Your task to perform on an android device: turn off sleep mode Image 0: 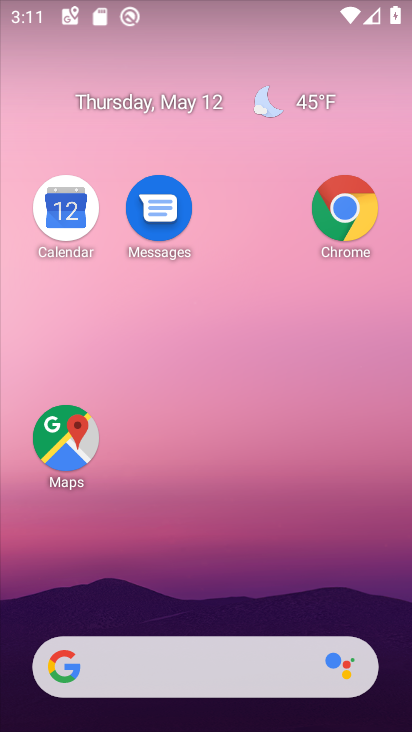
Step 0: drag from (136, 615) to (256, 0)
Your task to perform on an android device: turn off sleep mode Image 1: 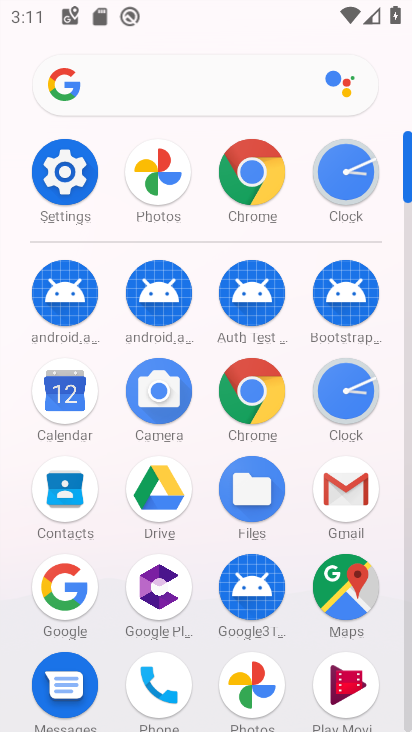
Step 1: click (68, 159)
Your task to perform on an android device: turn off sleep mode Image 2: 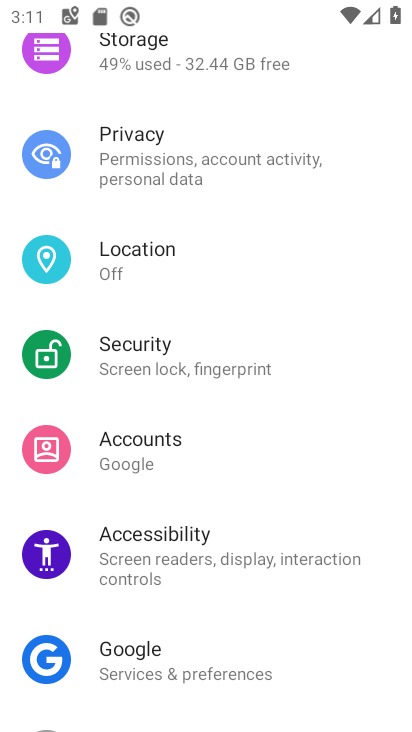
Step 2: drag from (178, 176) to (274, 657)
Your task to perform on an android device: turn off sleep mode Image 3: 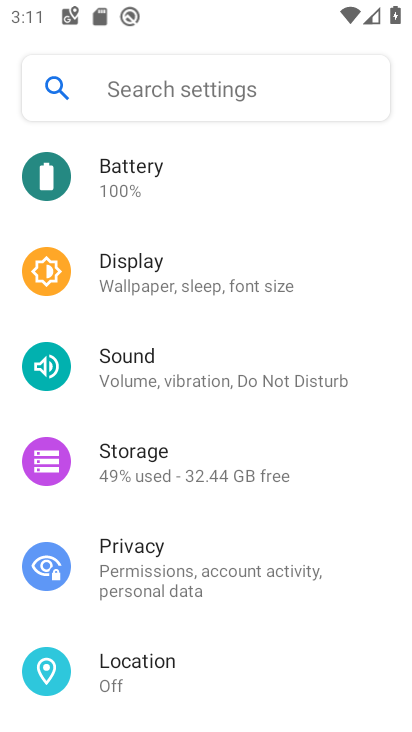
Step 3: drag from (199, 632) to (231, 168)
Your task to perform on an android device: turn off sleep mode Image 4: 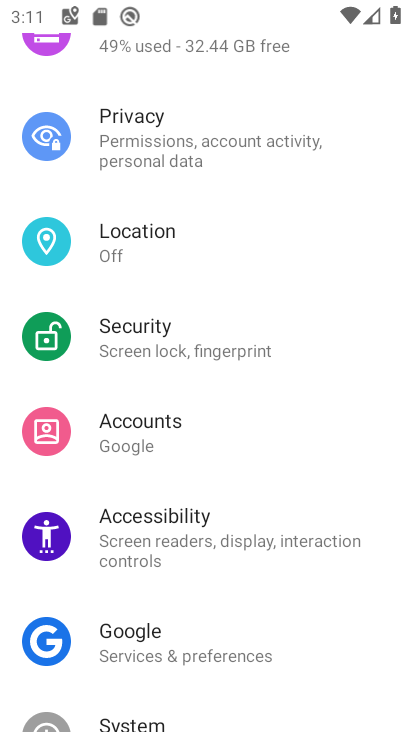
Step 4: drag from (231, 163) to (246, 656)
Your task to perform on an android device: turn off sleep mode Image 5: 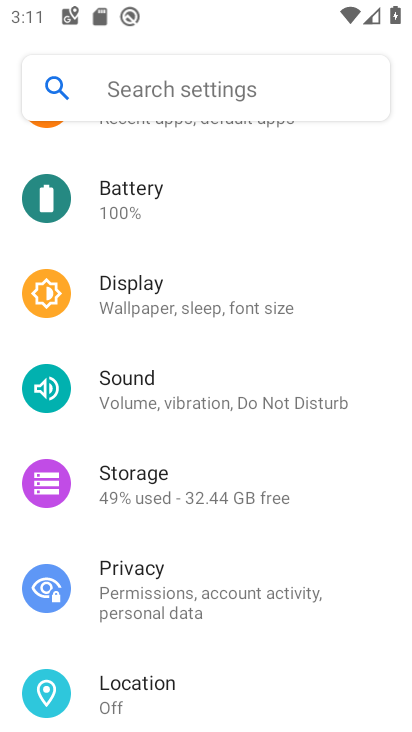
Step 5: drag from (198, 224) to (266, 420)
Your task to perform on an android device: turn off sleep mode Image 6: 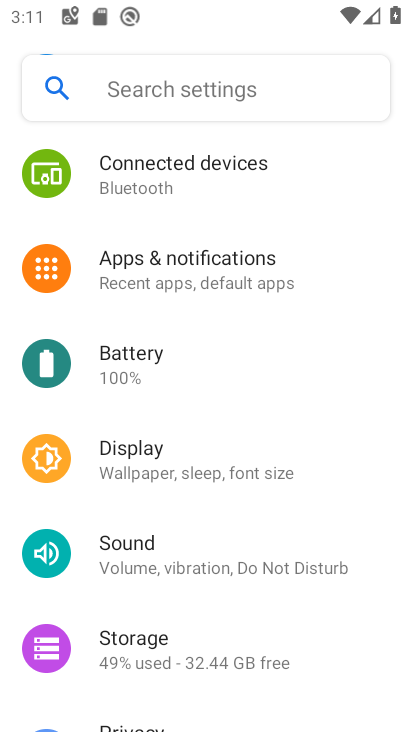
Step 6: click (210, 450)
Your task to perform on an android device: turn off sleep mode Image 7: 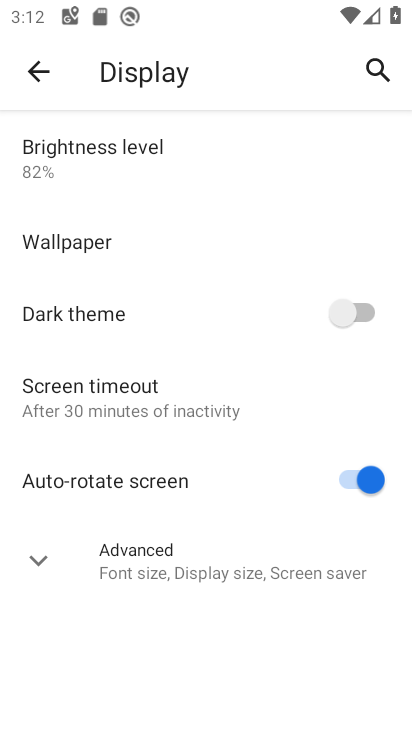
Step 7: click (181, 411)
Your task to perform on an android device: turn off sleep mode Image 8: 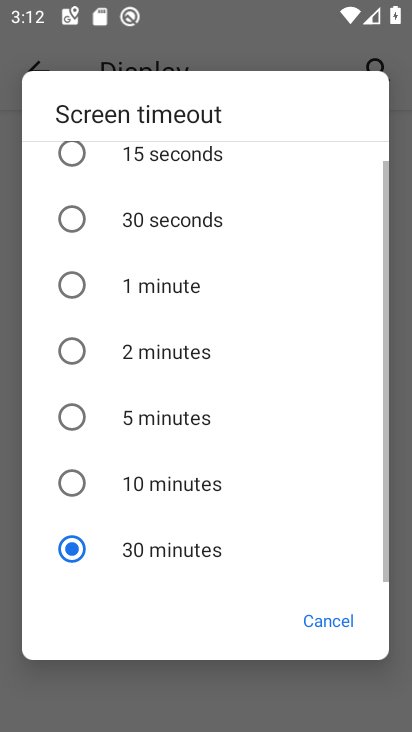
Step 8: task complete